Your task to perform on an android device: turn on priority inbox in the gmail app Image 0: 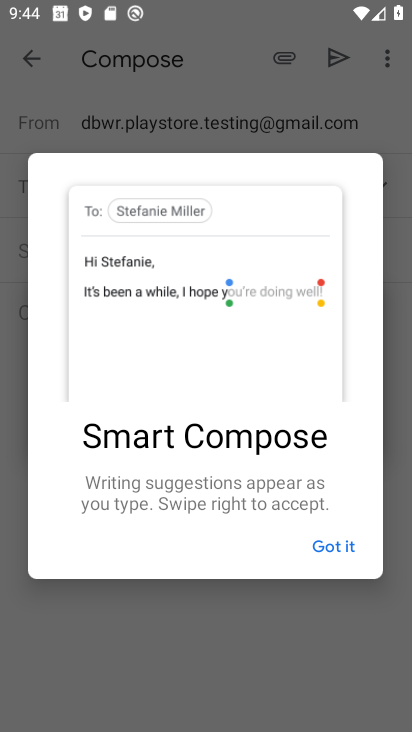
Step 0: press home button
Your task to perform on an android device: turn on priority inbox in the gmail app Image 1: 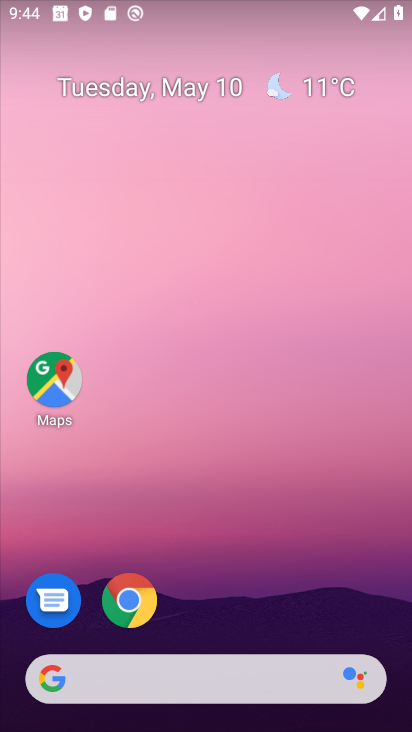
Step 1: drag from (256, 586) to (412, 281)
Your task to perform on an android device: turn on priority inbox in the gmail app Image 2: 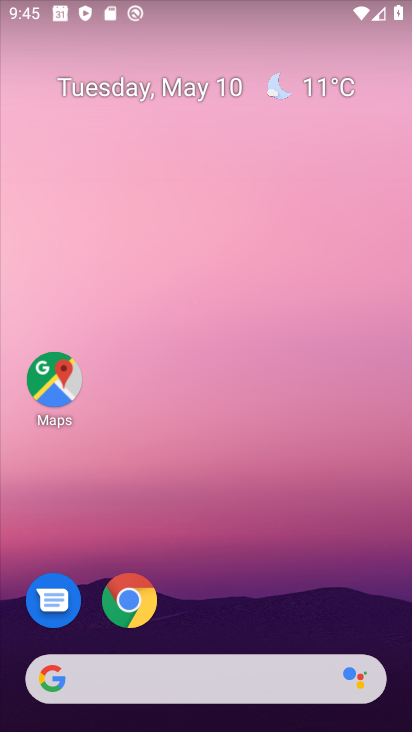
Step 2: drag from (253, 601) to (241, 12)
Your task to perform on an android device: turn on priority inbox in the gmail app Image 3: 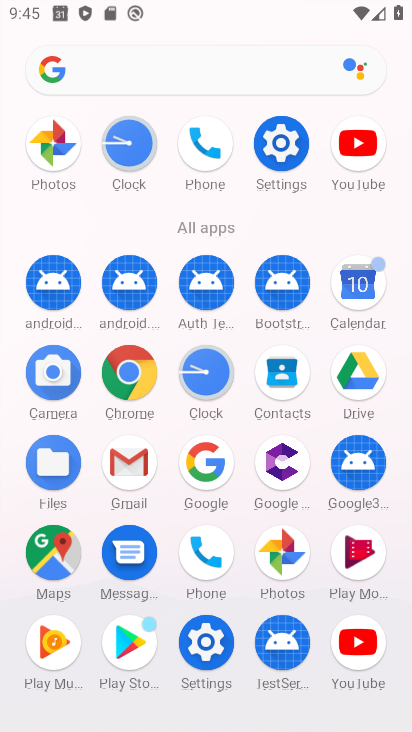
Step 3: click (119, 485)
Your task to perform on an android device: turn on priority inbox in the gmail app Image 4: 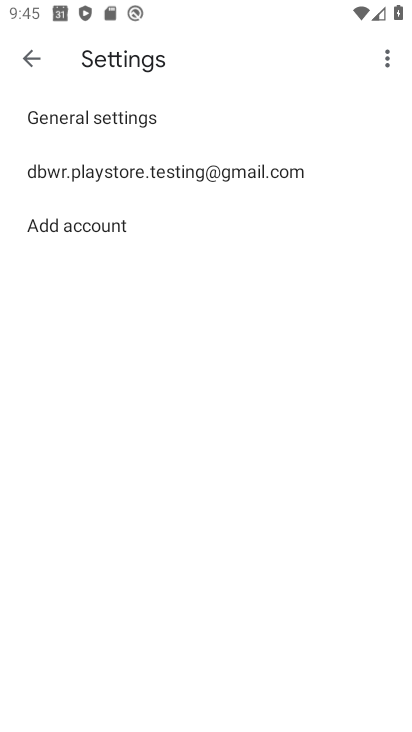
Step 4: click (55, 169)
Your task to perform on an android device: turn on priority inbox in the gmail app Image 5: 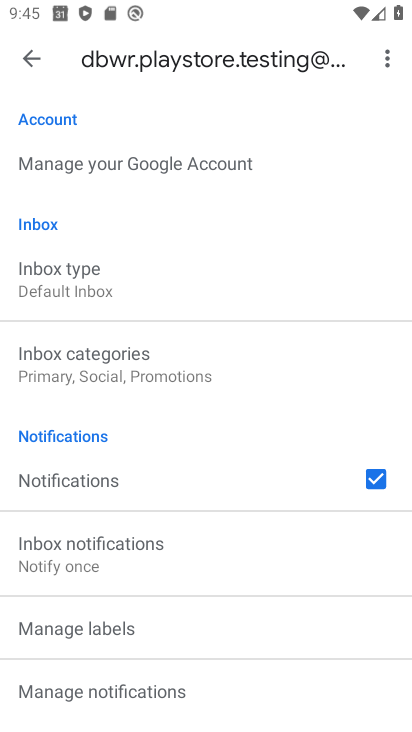
Step 5: click (36, 294)
Your task to perform on an android device: turn on priority inbox in the gmail app Image 6: 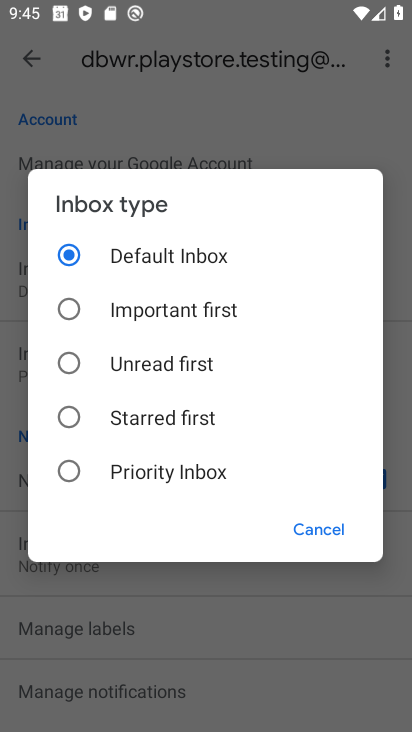
Step 6: click (143, 472)
Your task to perform on an android device: turn on priority inbox in the gmail app Image 7: 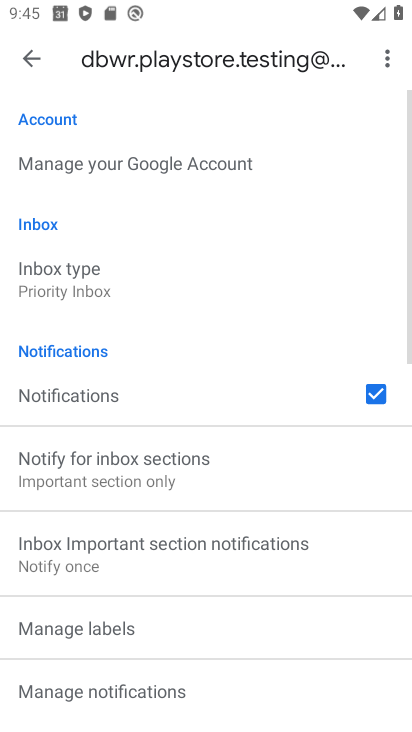
Step 7: task complete